Your task to perform on an android device: install app "Google Chat" Image 0: 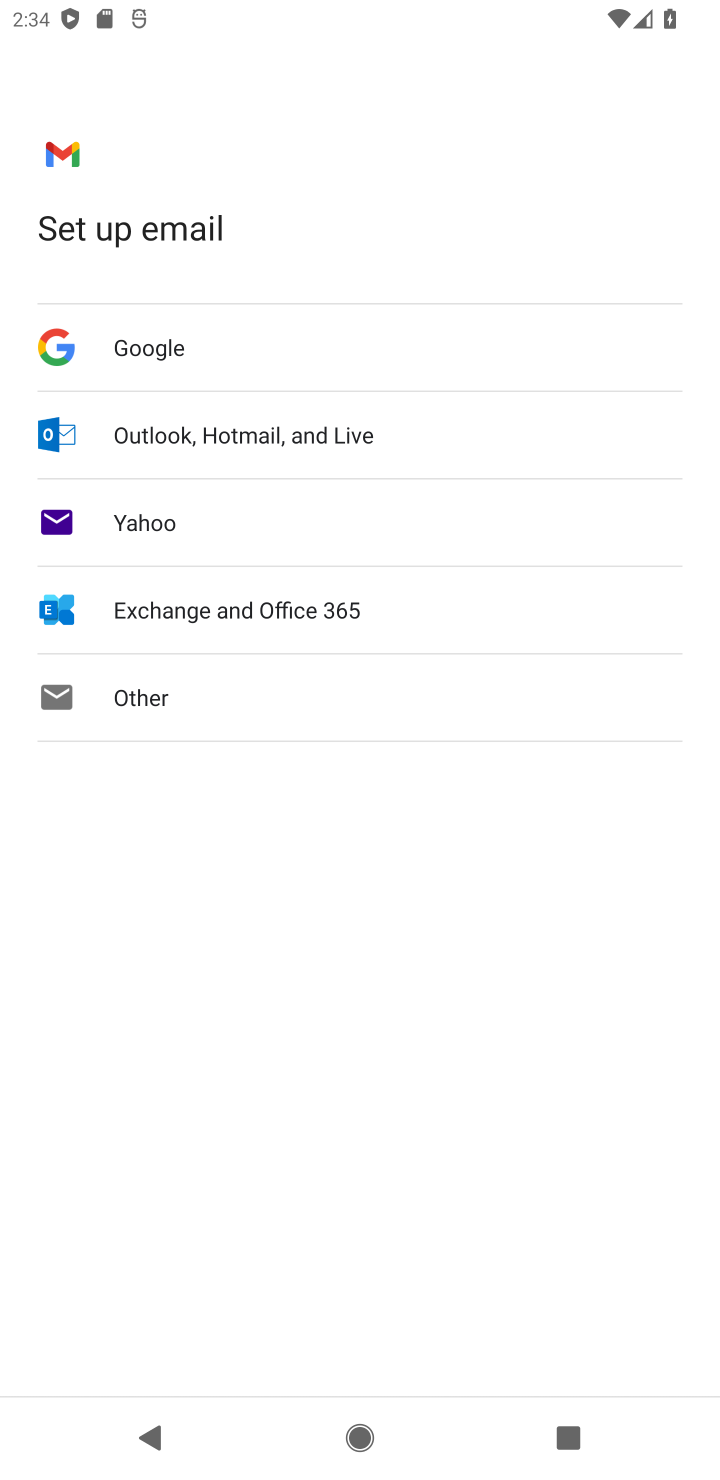
Step 0: press home button
Your task to perform on an android device: install app "Google Chat" Image 1: 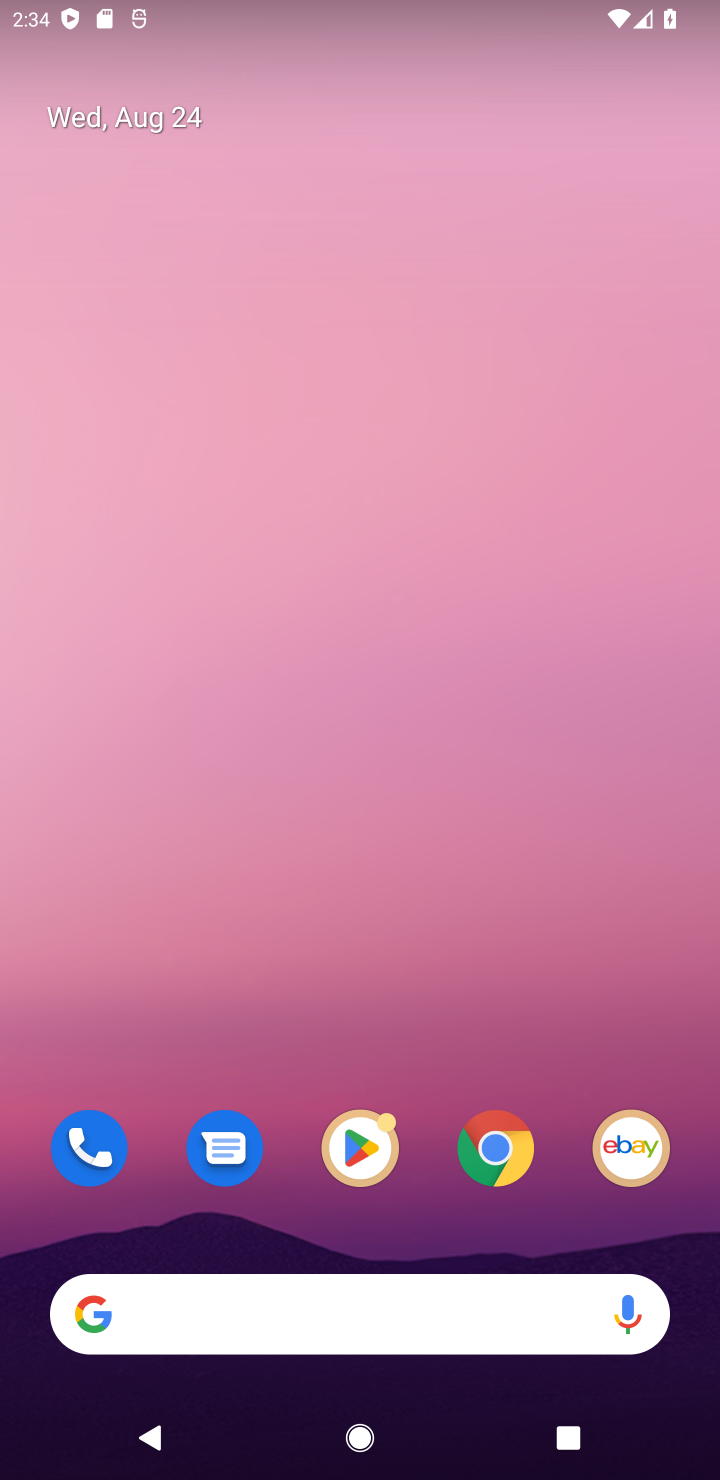
Step 1: drag from (290, 1171) to (430, 196)
Your task to perform on an android device: install app "Google Chat" Image 2: 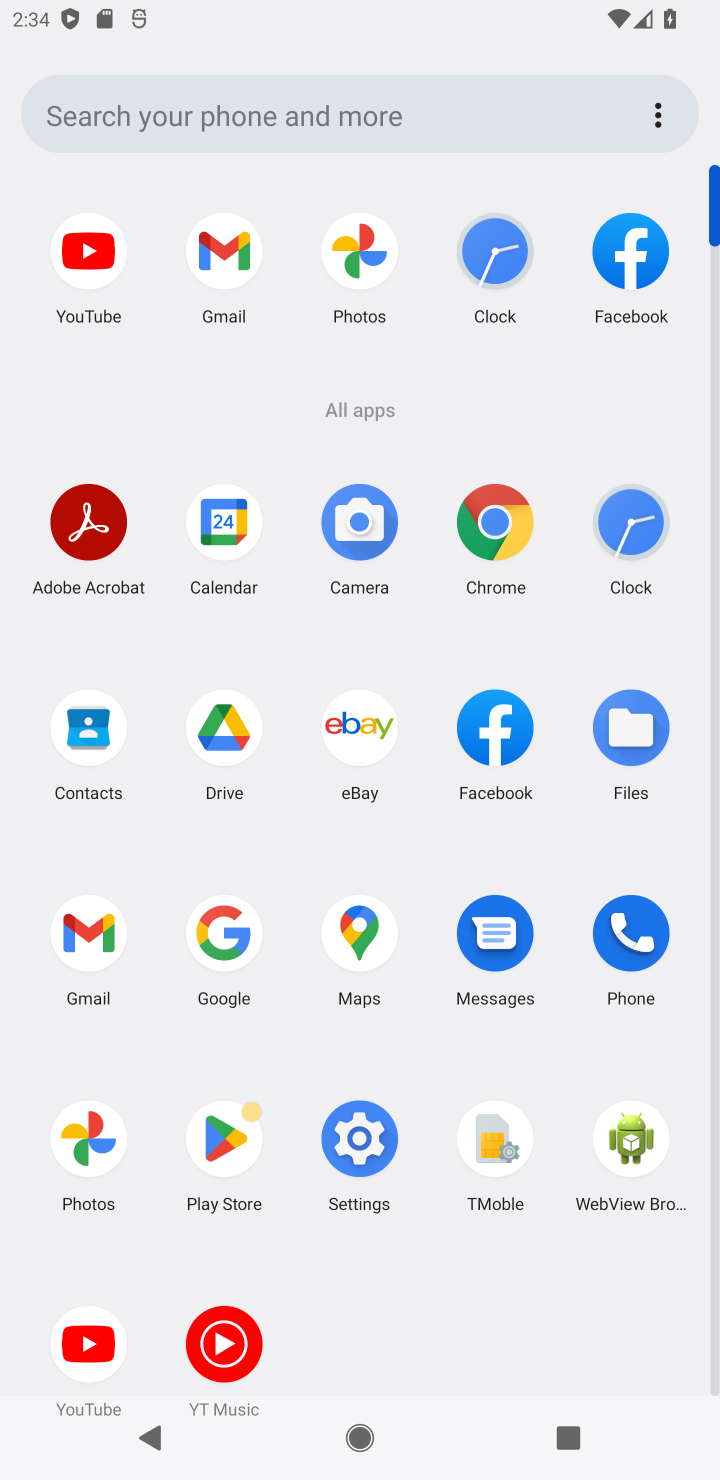
Step 2: click (203, 1136)
Your task to perform on an android device: install app "Google Chat" Image 3: 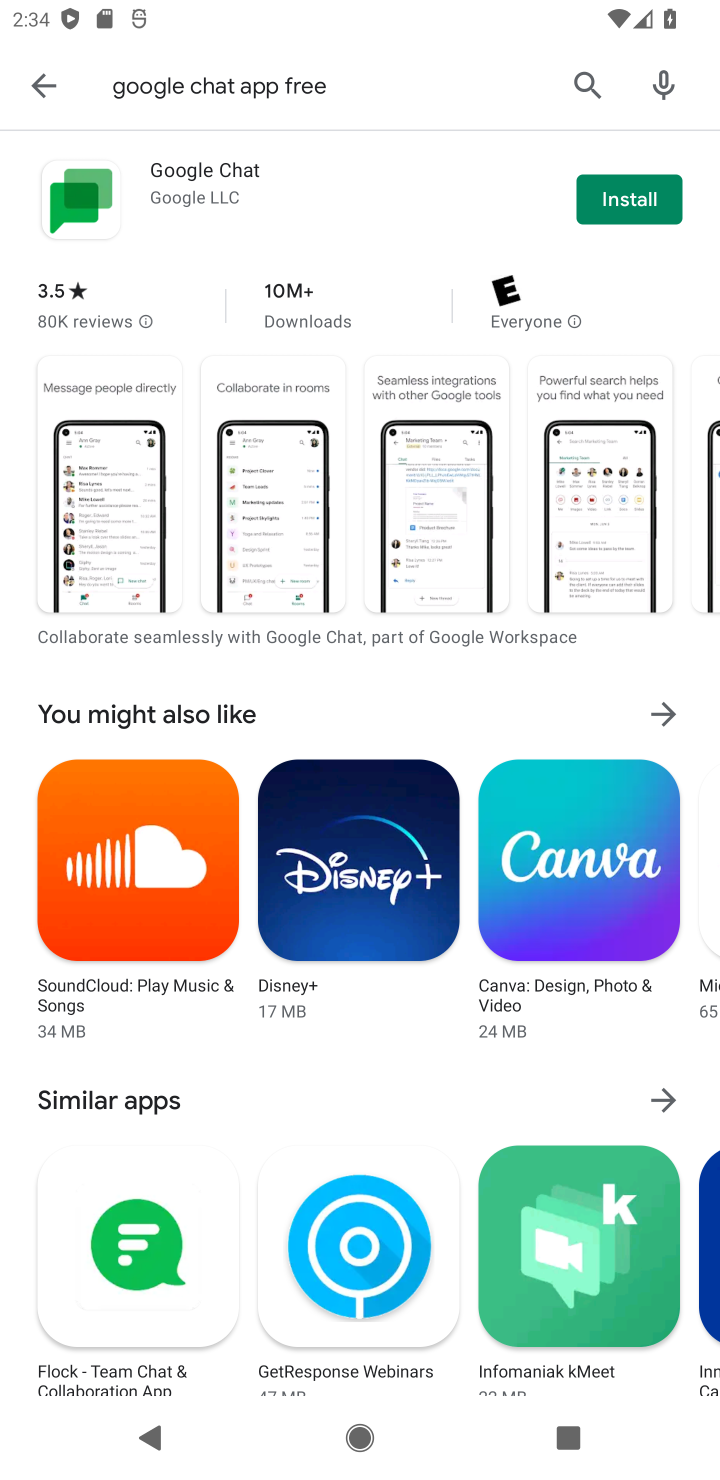
Step 3: click (634, 214)
Your task to perform on an android device: install app "Google Chat" Image 4: 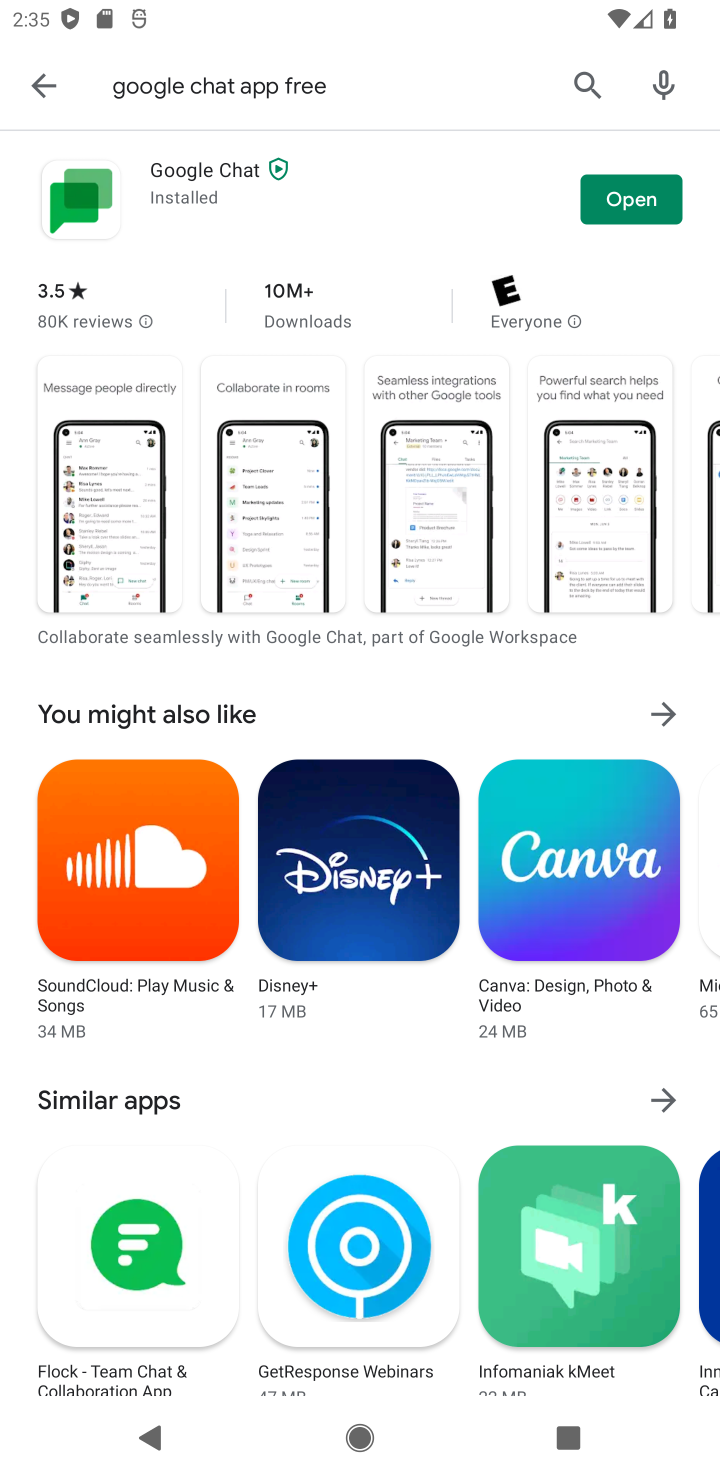
Step 4: click (621, 207)
Your task to perform on an android device: install app "Google Chat" Image 5: 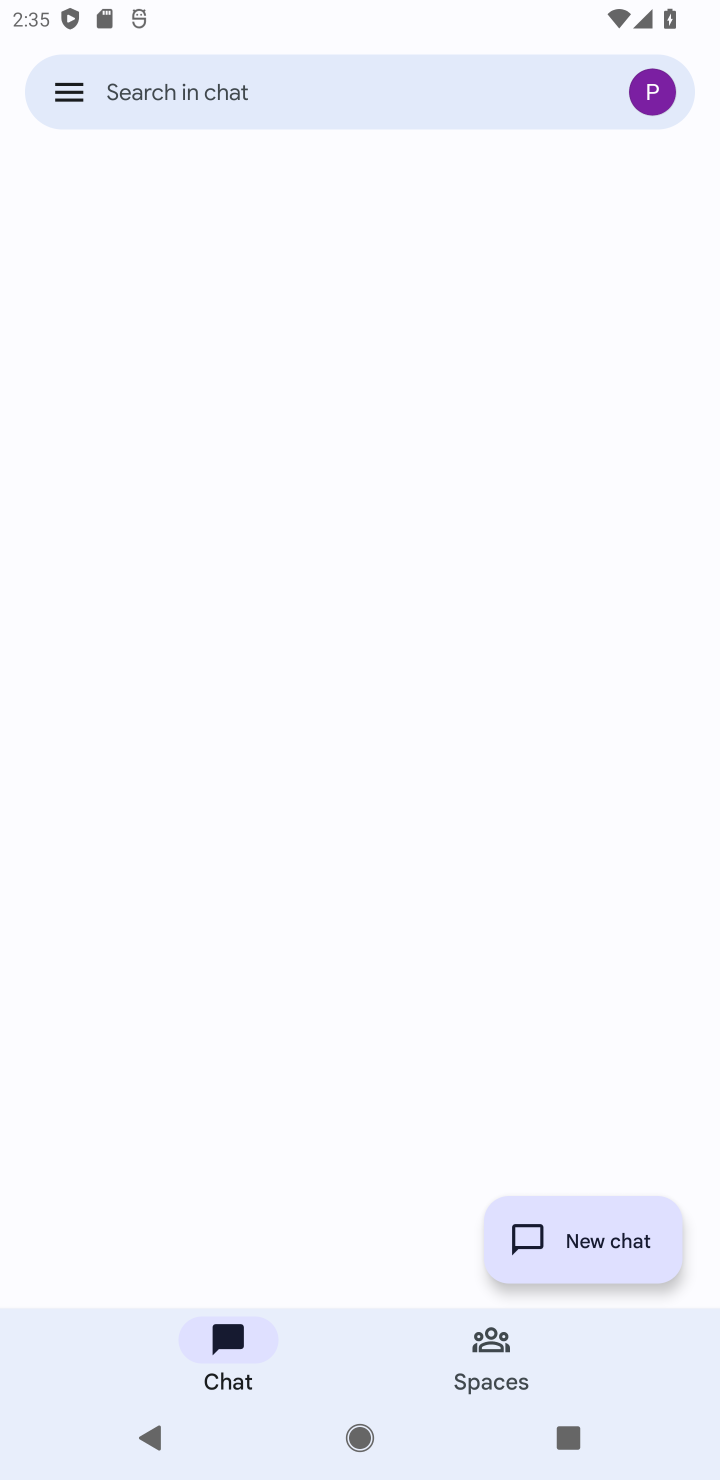
Step 5: task complete